Your task to perform on an android device: turn notification dots off Image 0: 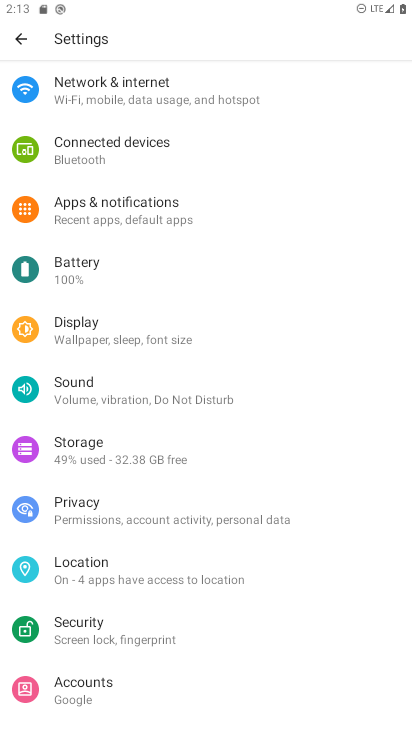
Step 0: drag from (214, 367) to (227, 291)
Your task to perform on an android device: turn notification dots off Image 1: 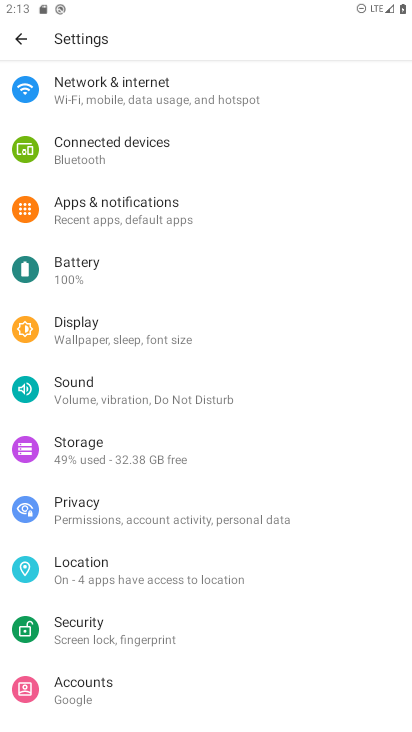
Step 1: click (89, 216)
Your task to perform on an android device: turn notification dots off Image 2: 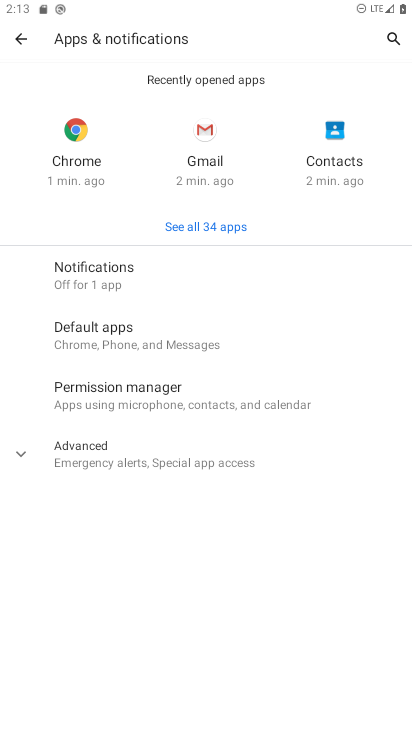
Step 2: click (132, 260)
Your task to perform on an android device: turn notification dots off Image 3: 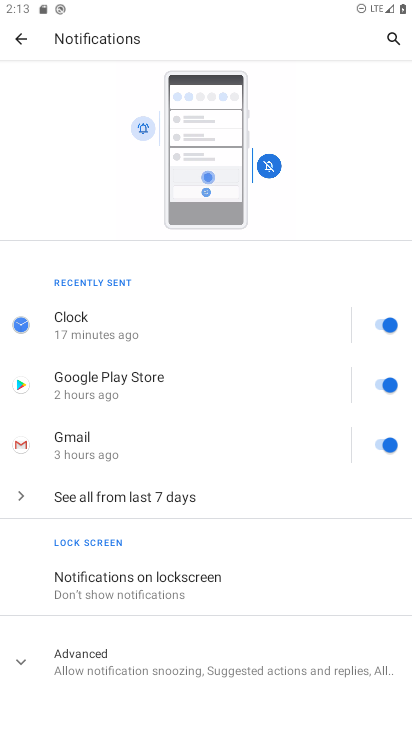
Step 3: click (249, 375)
Your task to perform on an android device: turn notification dots off Image 4: 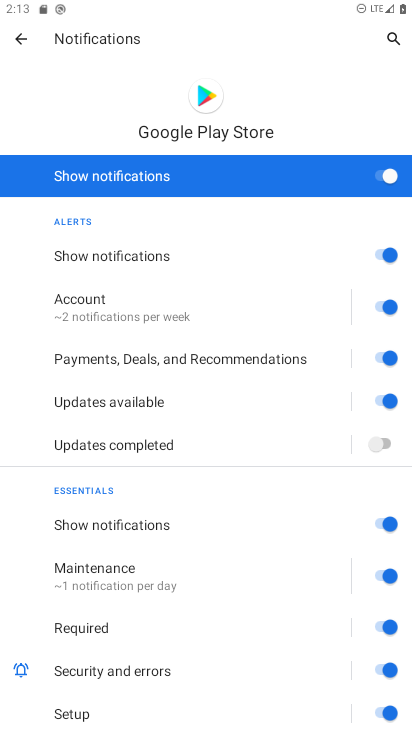
Step 4: click (22, 40)
Your task to perform on an android device: turn notification dots off Image 5: 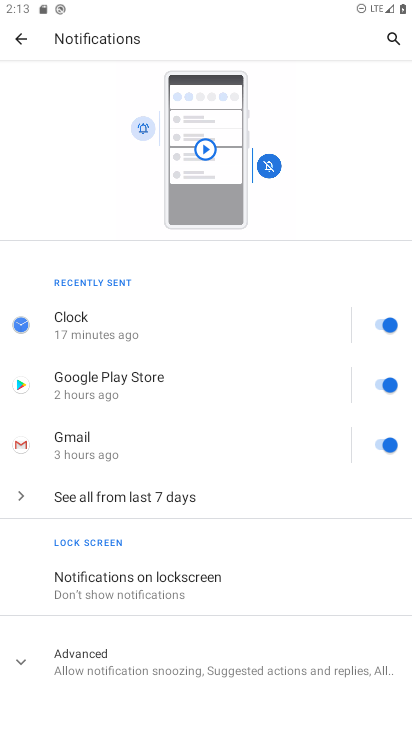
Step 5: click (127, 656)
Your task to perform on an android device: turn notification dots off Image 6: 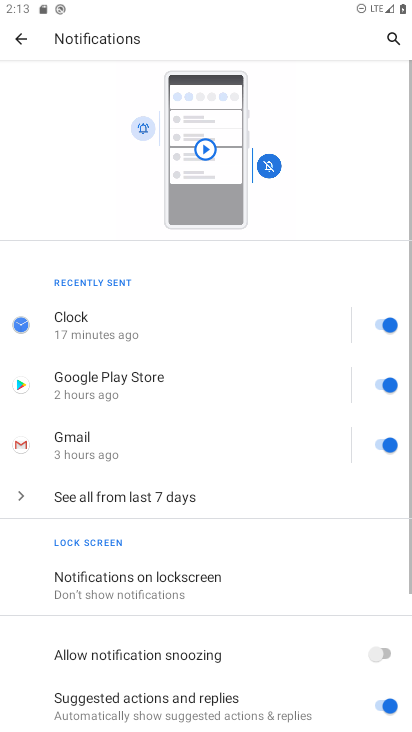
Step 6: task complete